Your task to perform on an android device: empty trash in the gmail app Image 0: 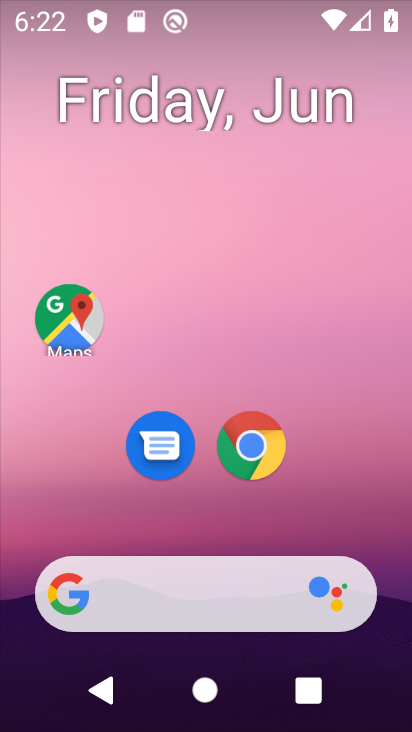
Step 0: drag from (184, 526) to (175, 157)
Your task to perform on an android device: empty trash in the gmail app Image 1: 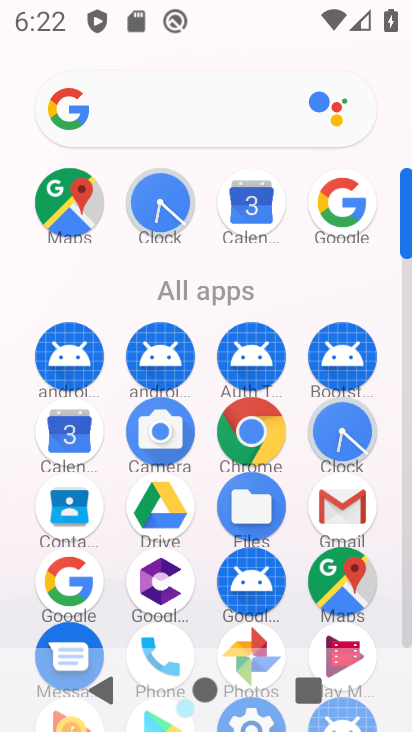
Step 1: click (339, 514)
Your task to perform on an android device: empty trash in the gmail app Image 2: 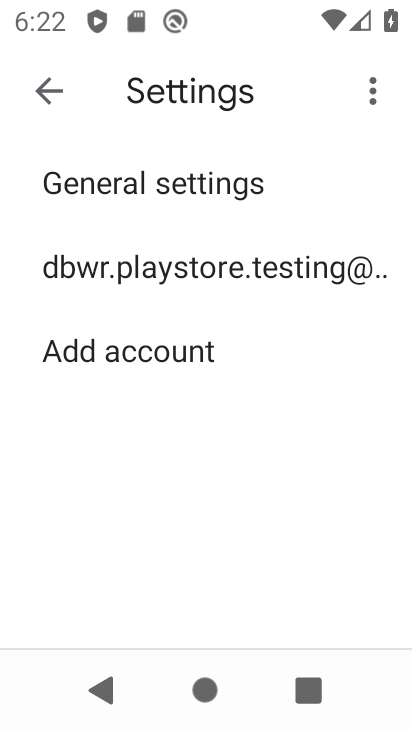
Step 2: click (190, 267)
Your task to perform on an android device: empty trash in the gmail app Image 3: 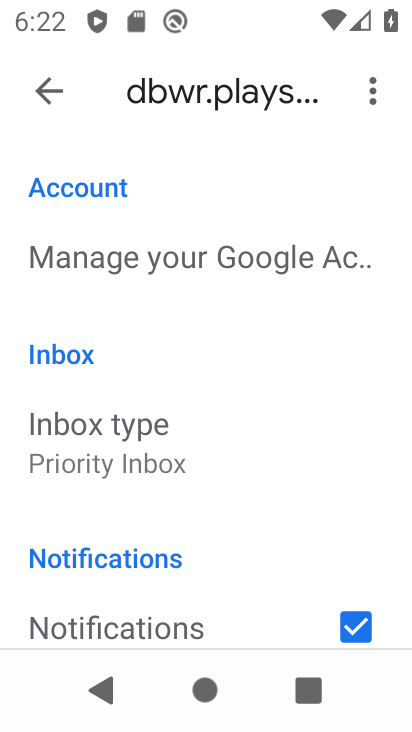
Step 3: drag from (136, 535) to (138, 291)
Your task to perform on an android device: empty trash in the gmail app Image 4: 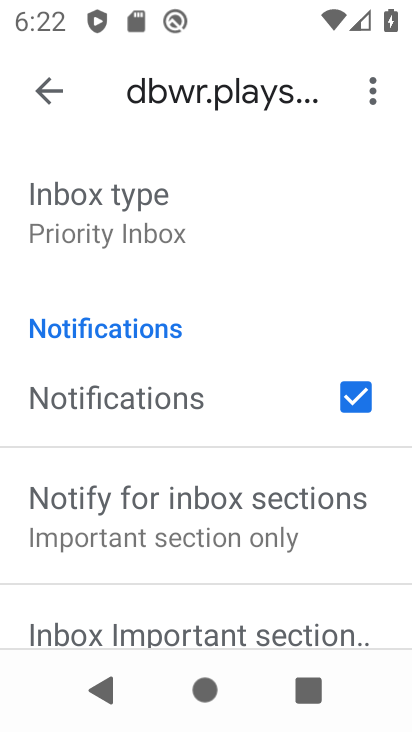
Step 4: click (53, 83)
Your task to perform on an android device: empty trash in the gmail app Image 5: 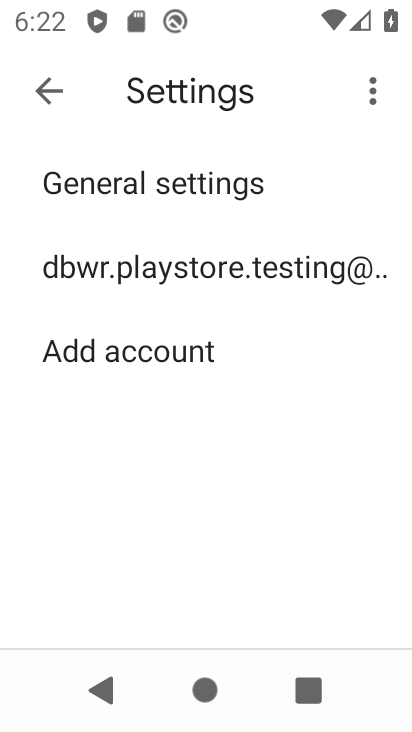
Step 5: click (51, 92)
Your task to perform on an android device: empty trash in the gmail app Image 6: 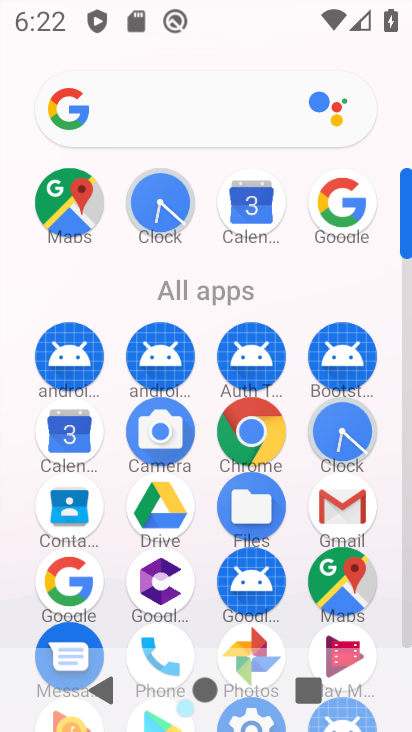
Step 6: click (347, 509)
Your task to perform on an android device: empty trash in the gmail app Image 7: 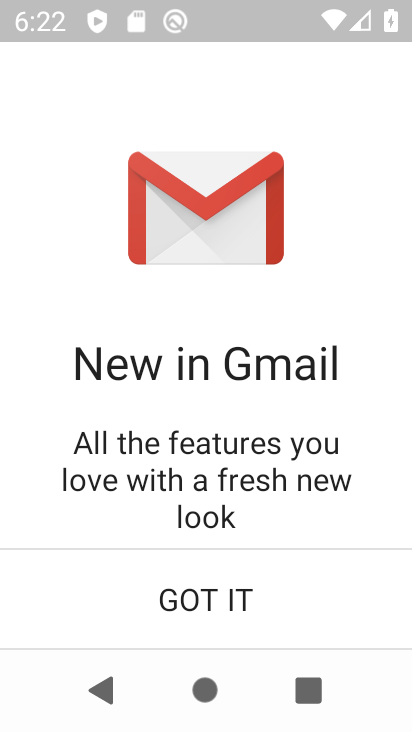
Step 7: click (194, 596)
Your task to perform on an android device: empty trash in the gmail app Image 8: 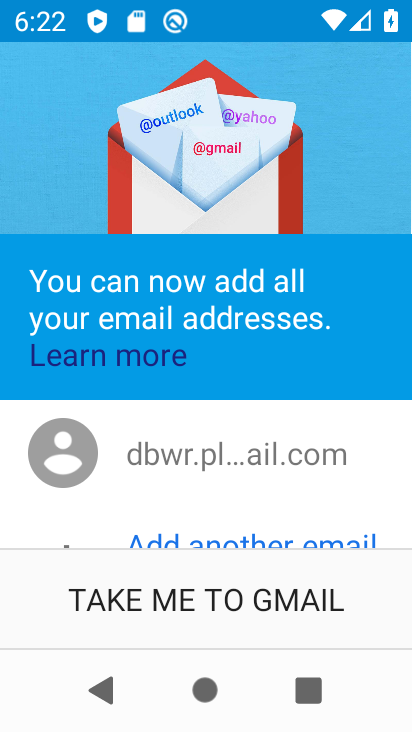
Step 8: click (192, 594)
Your task to perform on an android device: empty trash in the gmail app Image 9: 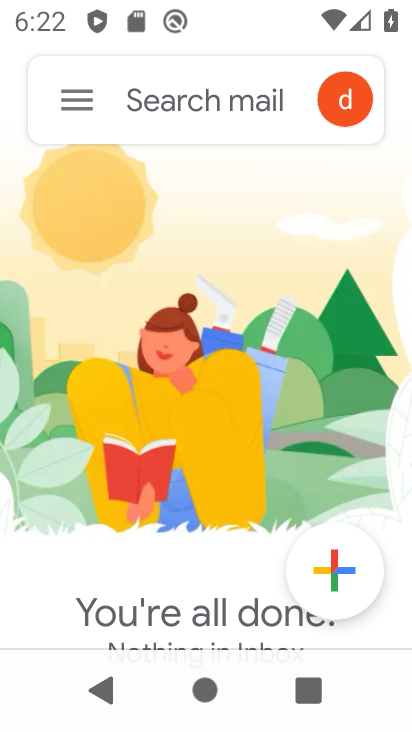
Step 9: click (84, 102)
Your task to perform on an android device: empty trash in the gmail app Image 10: 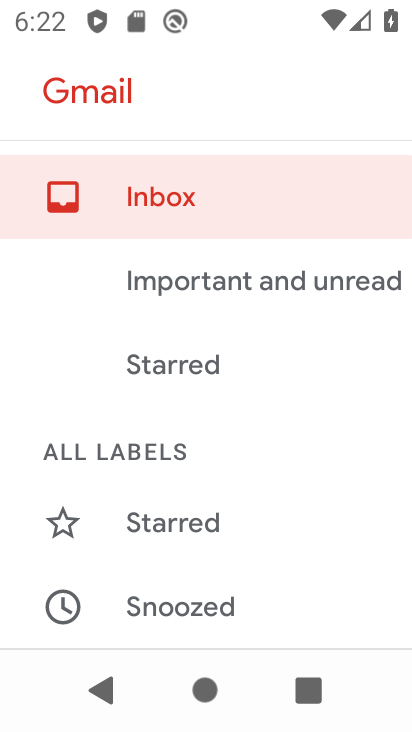
Step 10: drag from (194, 576) to (221, 394)
Your task to perform on an android device: empty trash in the gmail app Image 11: 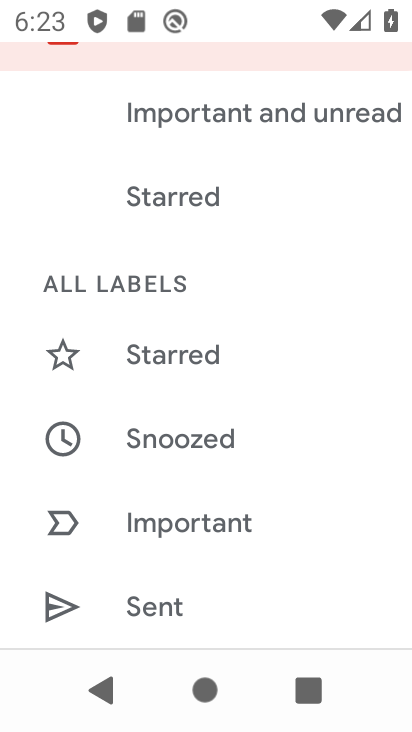
Step 11: drag from (184, 574) to (190, 382)
Your task to perform on an android device: empty trash in the gmail app Image 12: 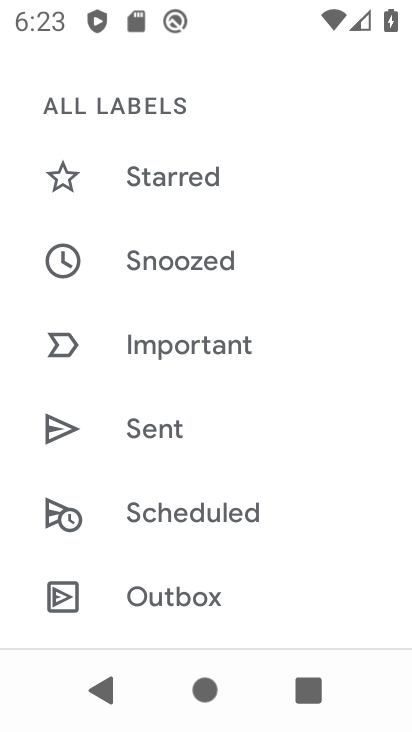
Step 12: drag from (202, 528) to (202, 257)
Your task to perform on an android device: empty trash in the gmail app Image 13: 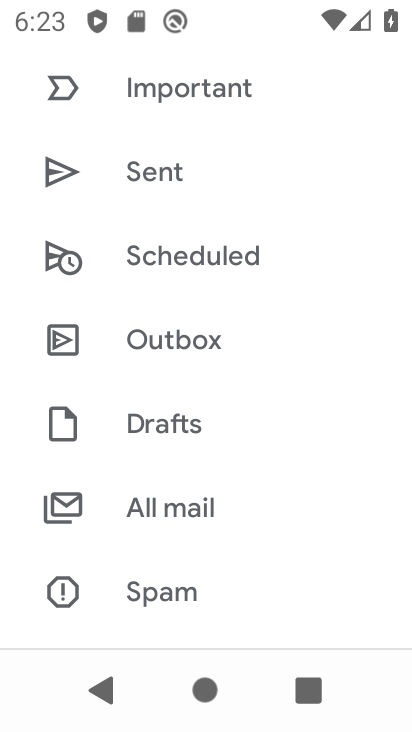
Step 13: drag from (171, 569) to (181, 264)
Your task to perform on an android device: empty trash in the gmail app Image 14: 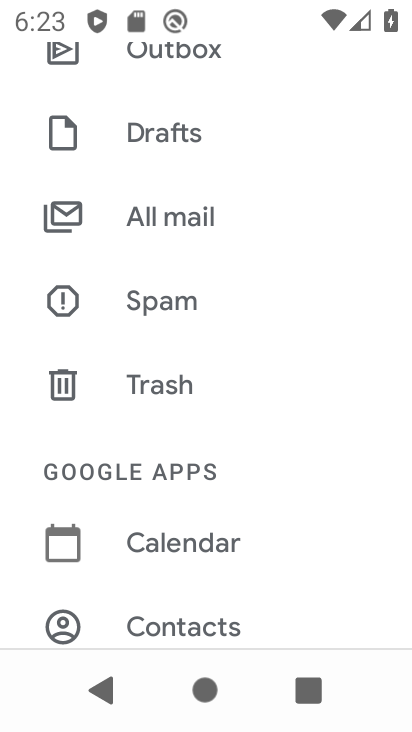
Step 14: click (165, 398)
Your task to perform on an android device: empty trash in the gmail app Image 15: 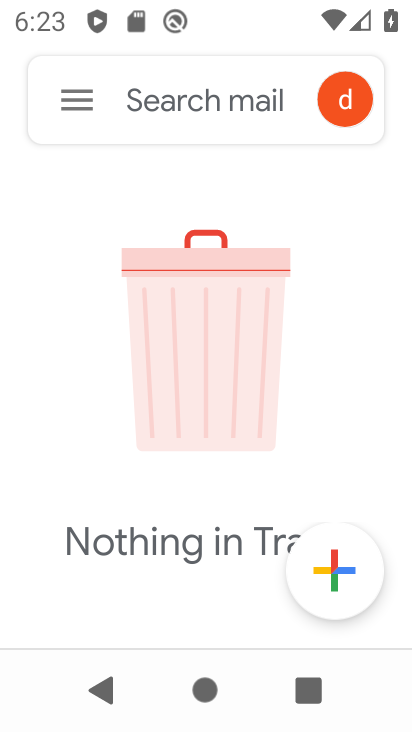
Step 15: task complete